Your task to perform on an android device: change your default location settings in chrome Image 0: 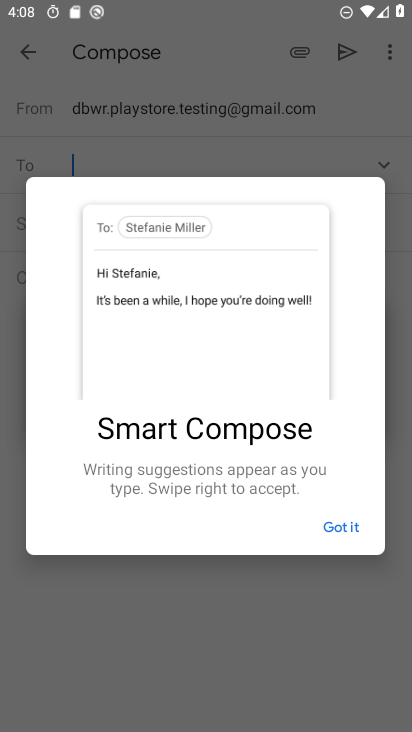
Step 0: press home button
Your task to perform on an android device: change your default location settings in chrome Image 1: 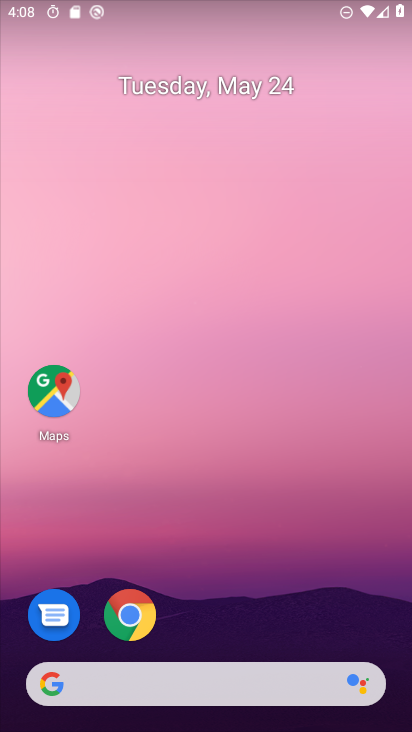
Step 1: drag from (221, 590) to (254, 120)
Your task to perform on an android device: change your default location settings in chrome Image 2: 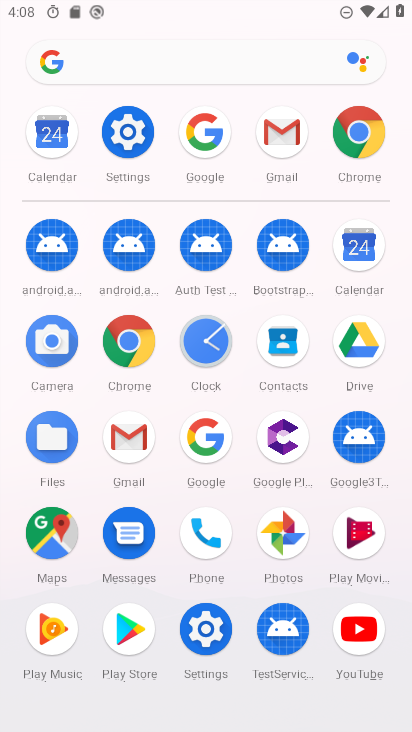
Step 2: click (370, 164)
Your task to perform on an android device: change your default location settings in chrome Image 3: 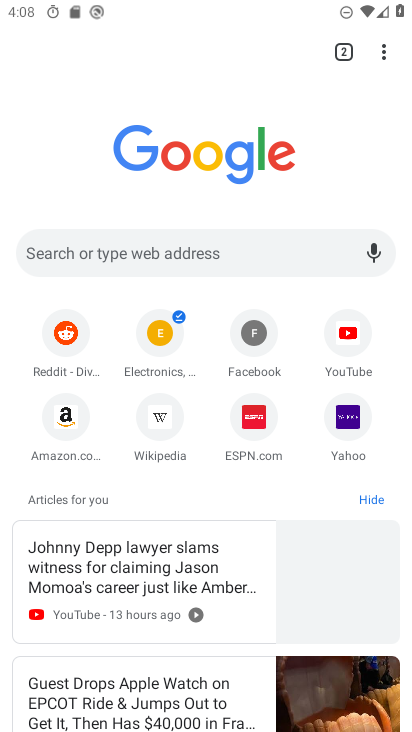
Step 3: click (392, 53)
Your task to perform on an android device: change your default location settings in chrome Image 4: 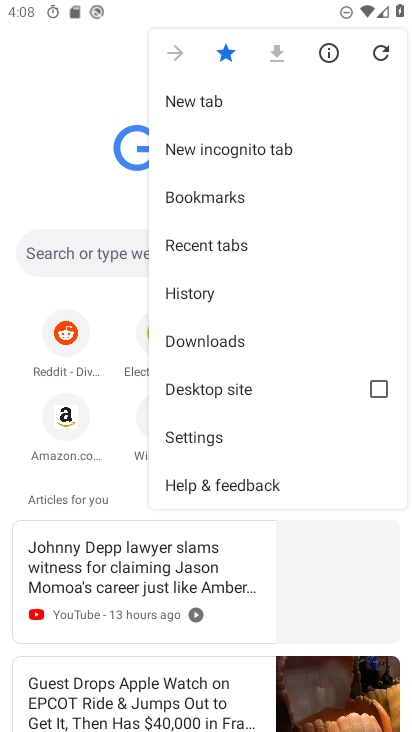
Step 4: click (197, 429)
Your task to perform on an android device: change your default location settings in chrome Image 5: 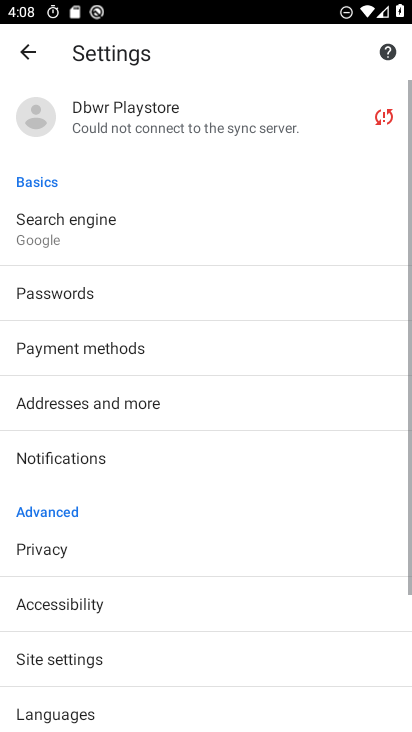
Step 5: drag from (197, 509) to (219, 294)
Your task to perform on an android device: change your default location settings in chrome Image 6: 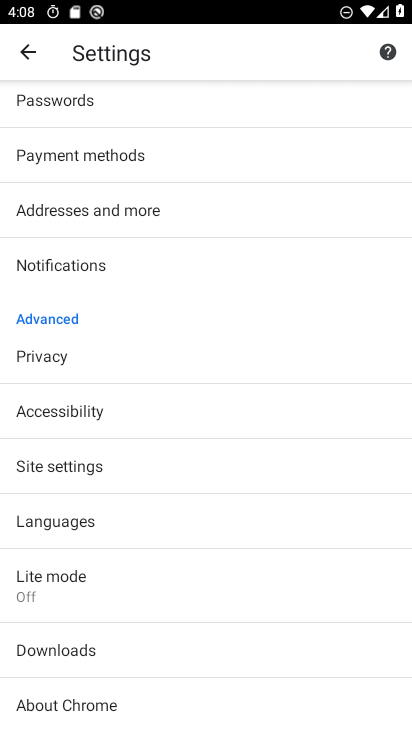
Step 6: click (85, 469)
Your task to perform on an android device: change your default location settings in chrome Image 7: 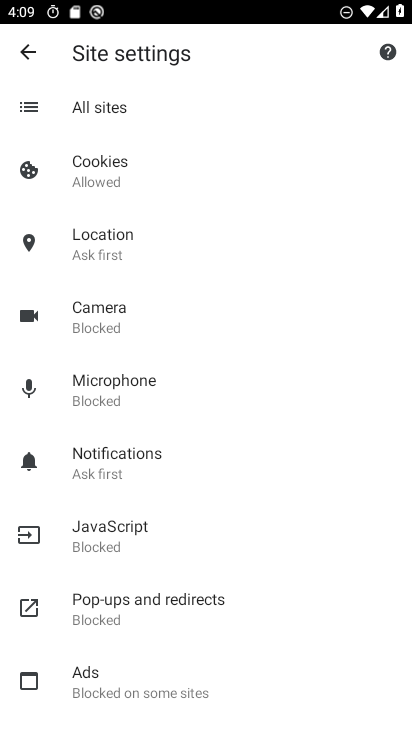
Step 7: click (140, 248)
Your task to perform on an android device: change your default location settings in chrome Image 8: 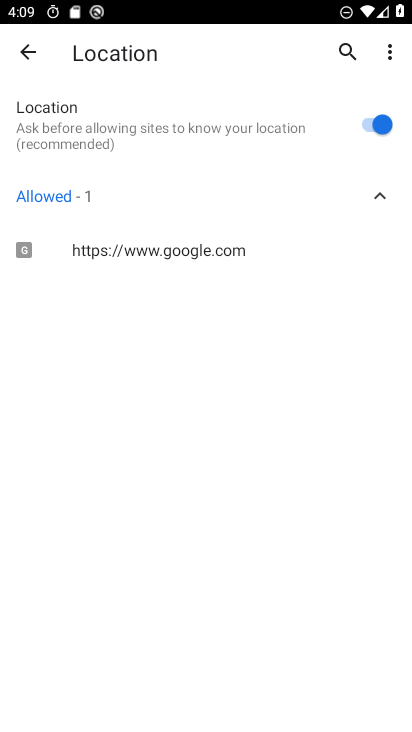
Step 8: click (345, 127)
Your task to perform on an android device: change your default location settings in chrome Image 9: 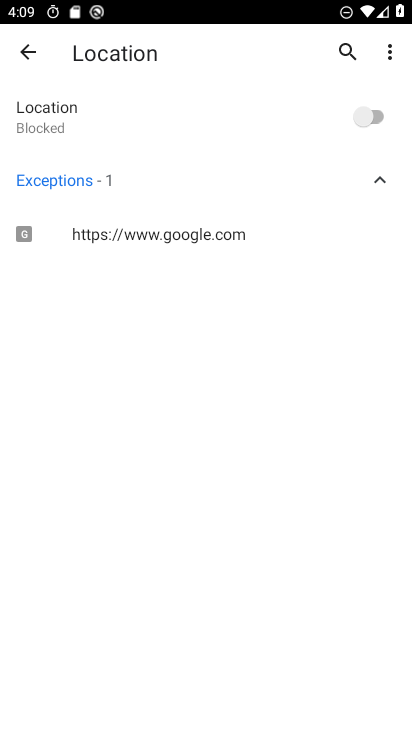
Step 9: task complete